Your task to perform on an android device: open app "Adobe Express: Graphic Design" Image 0: 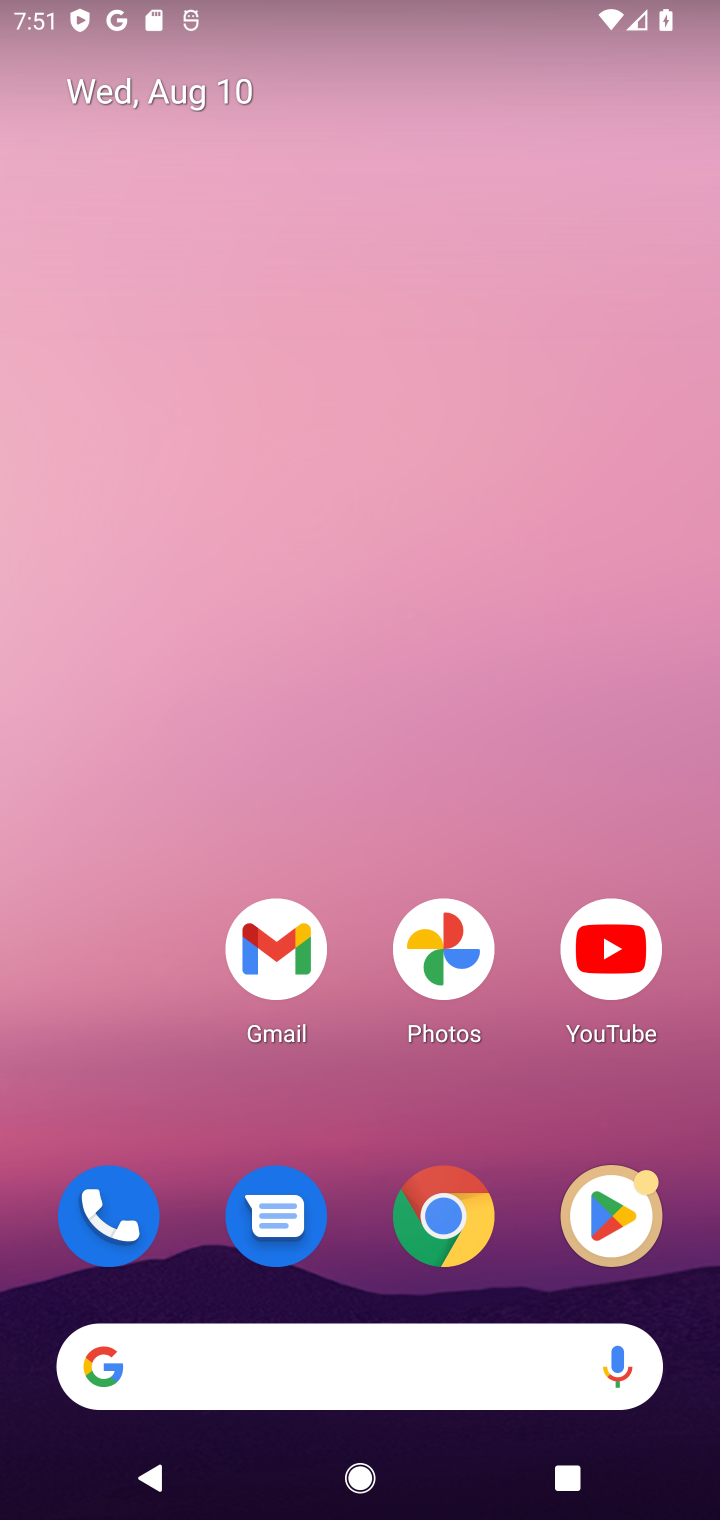
Step 0: click (628, 1228)
Your task to perform on an android device: open app "Adobe Express: Graphic Design" Image 1: 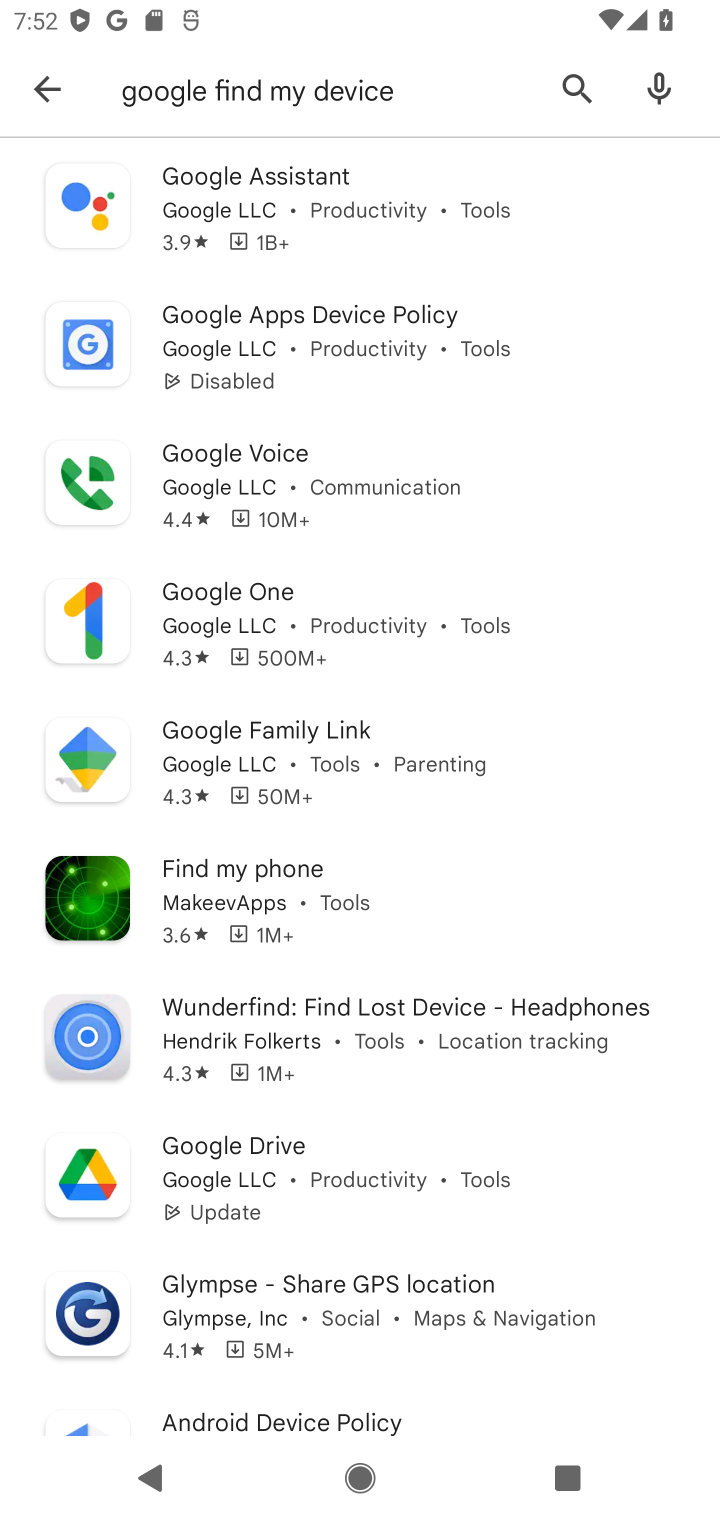
Step 1: click (572, 78)
Your task to perform on an android device: open app "Adobe Express: Graphic Design" Image 2: 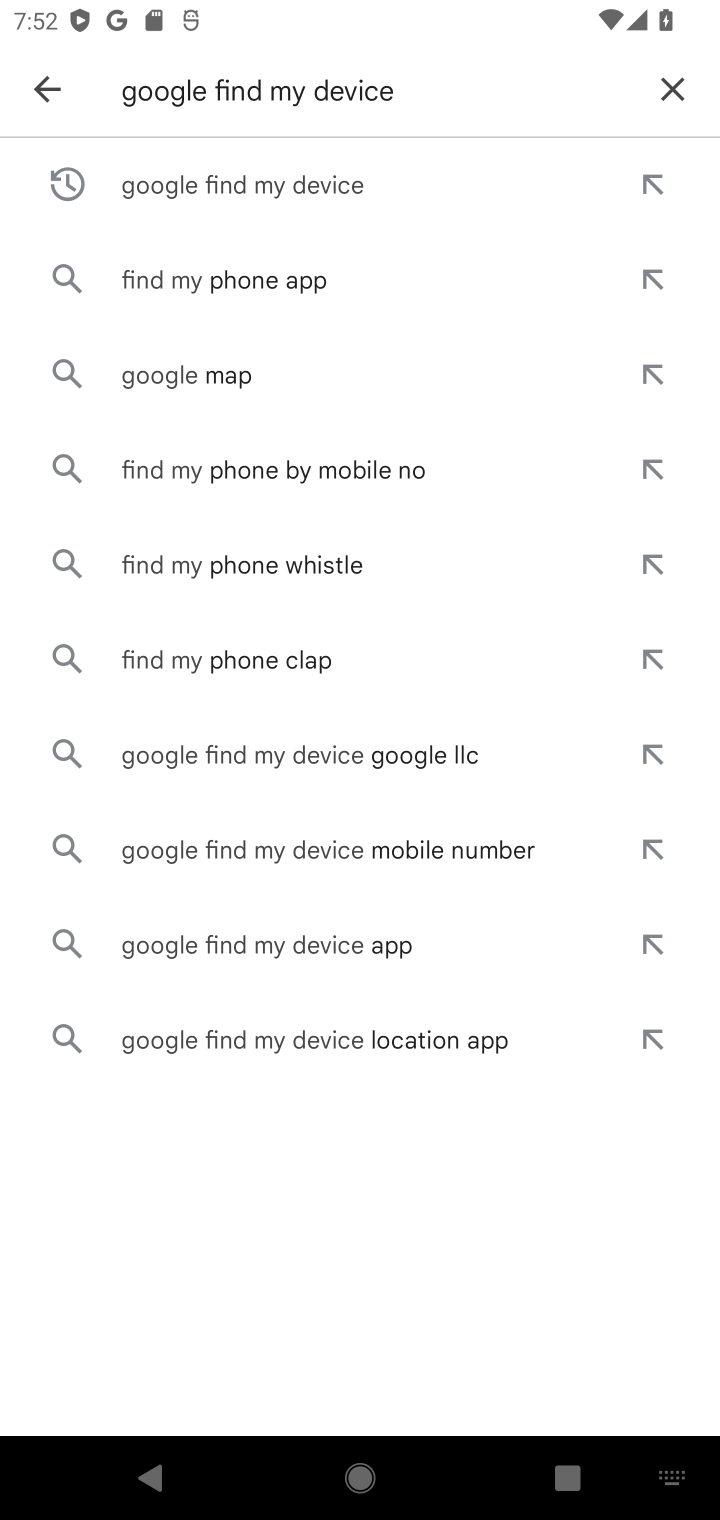
Step 2: click (660, 66)
Your task to perform on an android device: open app "Adobe Express: Graphic Design" Image 3: 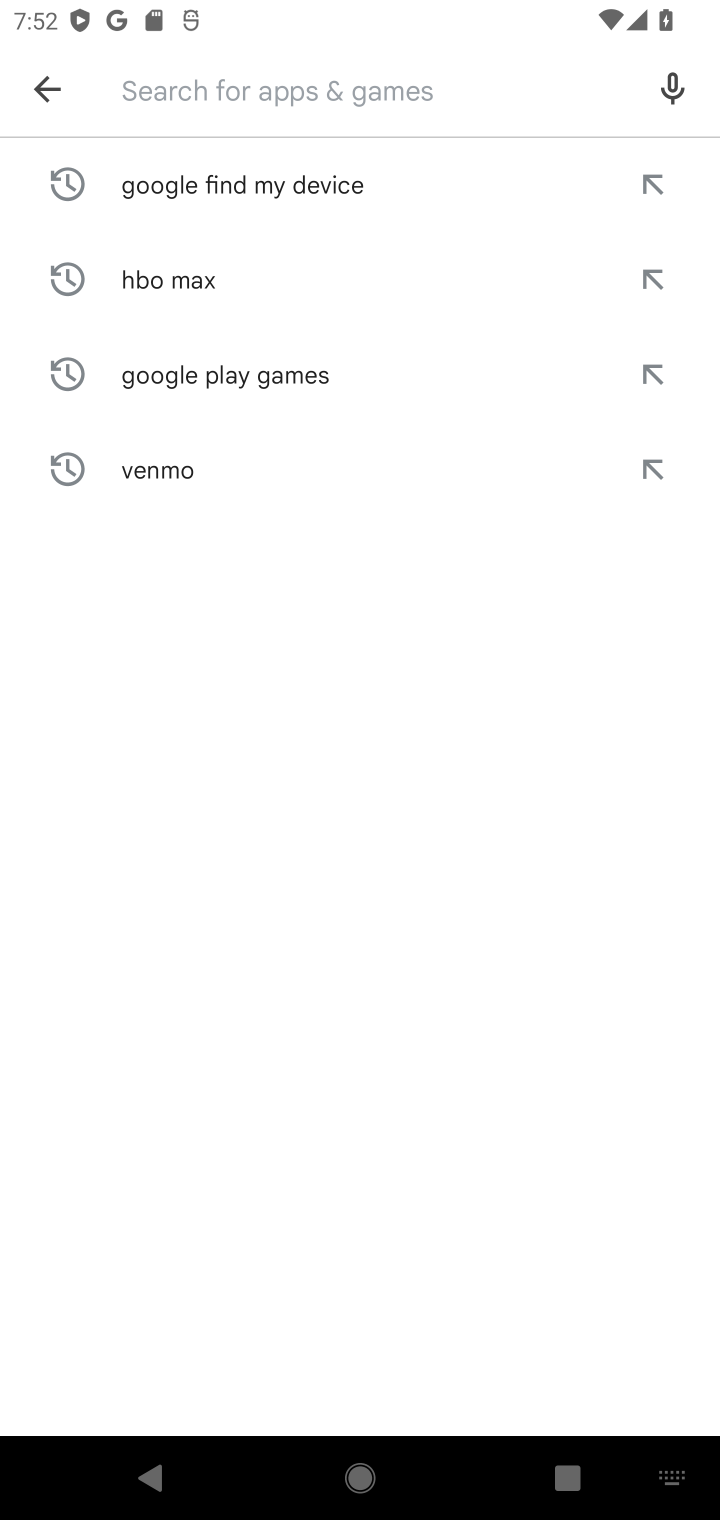
Step 3: click (256, 103)
Your task to perform on an android device: open app "Adobe Express: Graphic Design" Image 4: 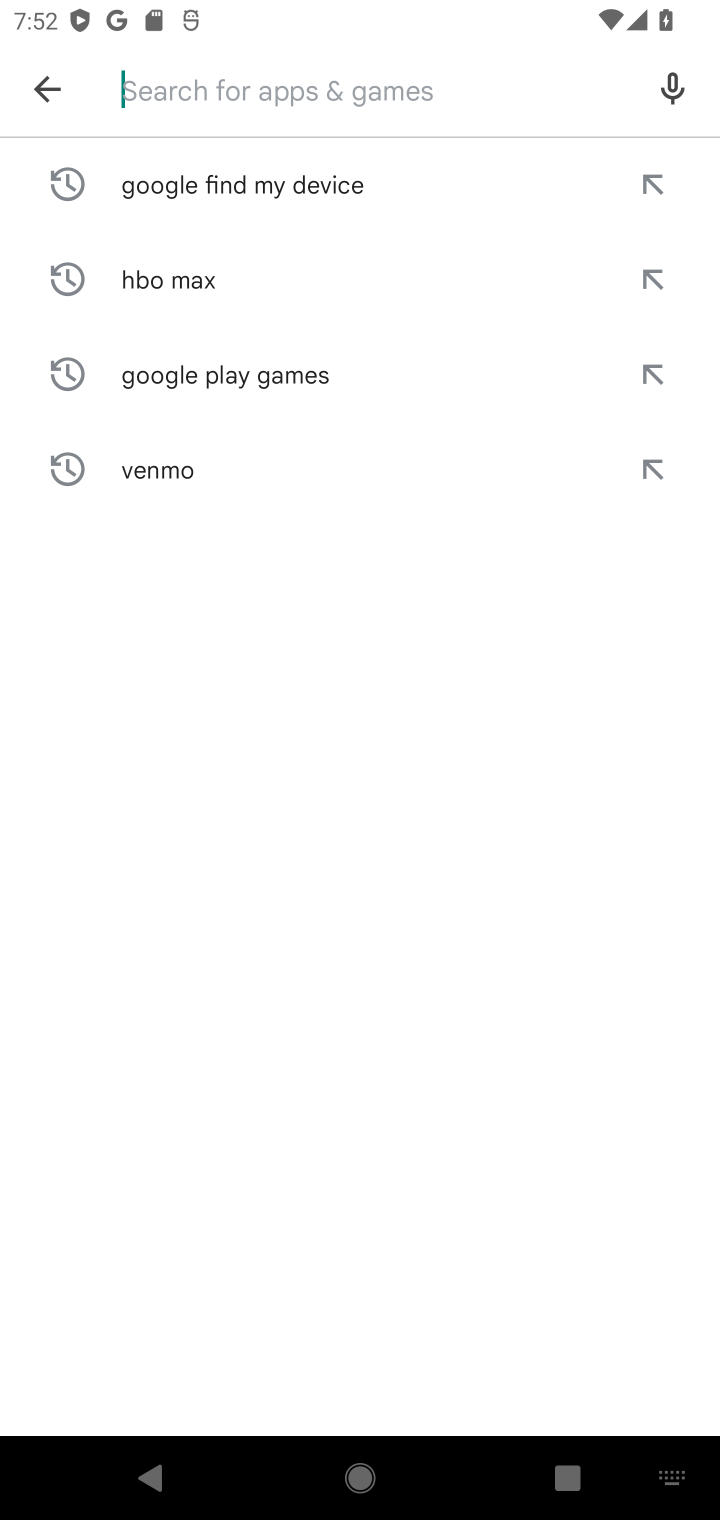
Step 4: click (199, 86)
Your task to perform on an android device: open app "Adobe Express: Graphic Design" Image 5: 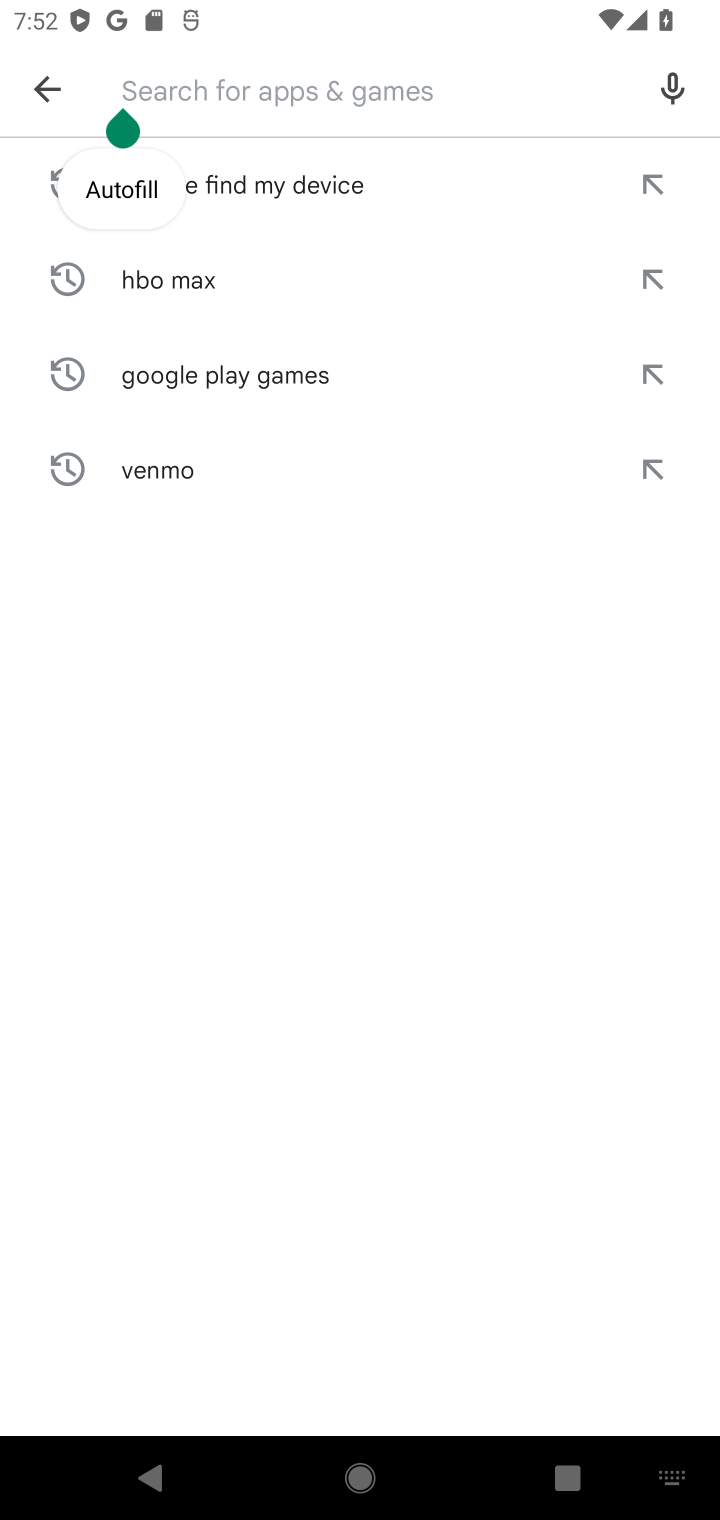
Step 5: type "Adobe Express: Graphic Design"
Your task to perform on an android device: open app "Adobe Express: Graphic Design" Image 6: 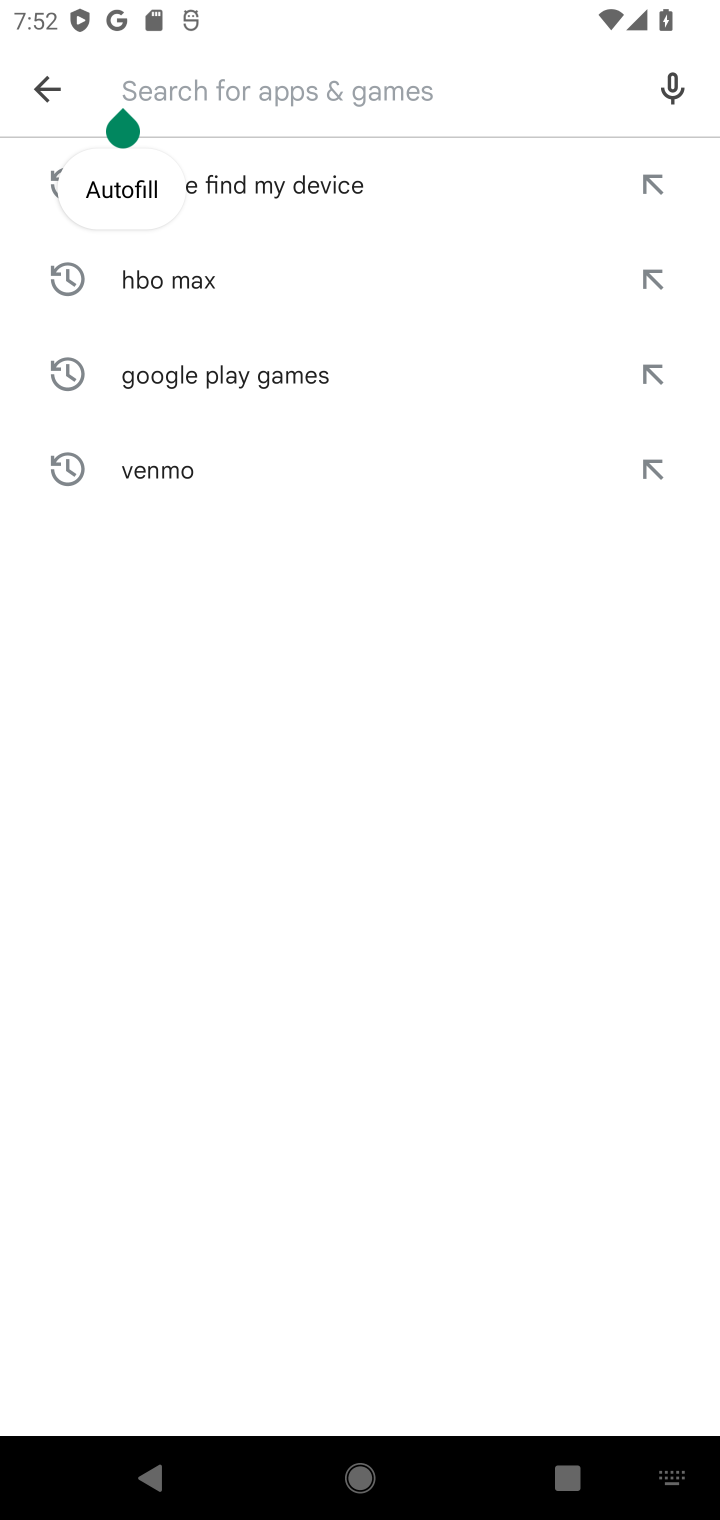
Step 6: click (350, 795)
Your task to perform on an android device: open app "Adobe Express: Graphic Design" Image 7: 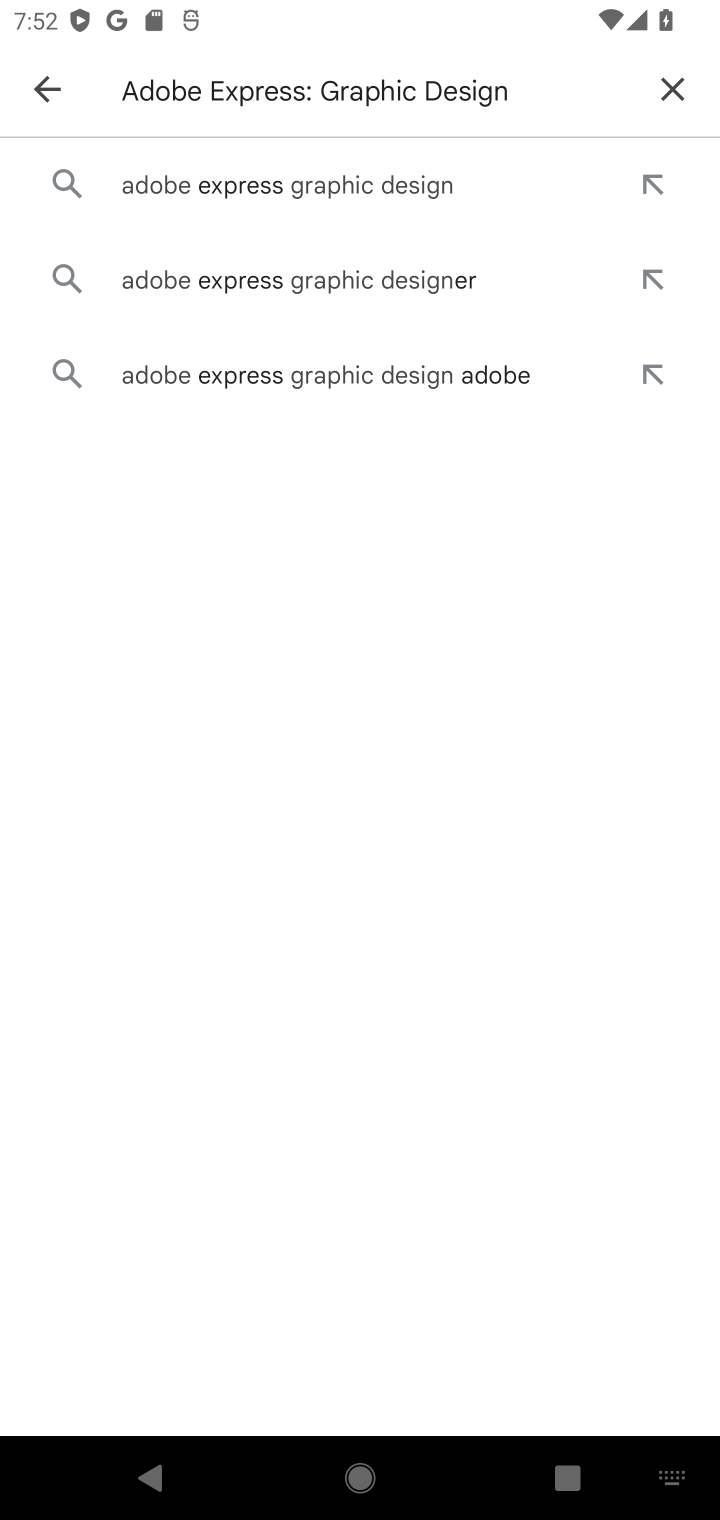
Step 7: click (335, 159)
Your task to perform on an android device: open app "Adobe Express: Graphic Design" Image 8: 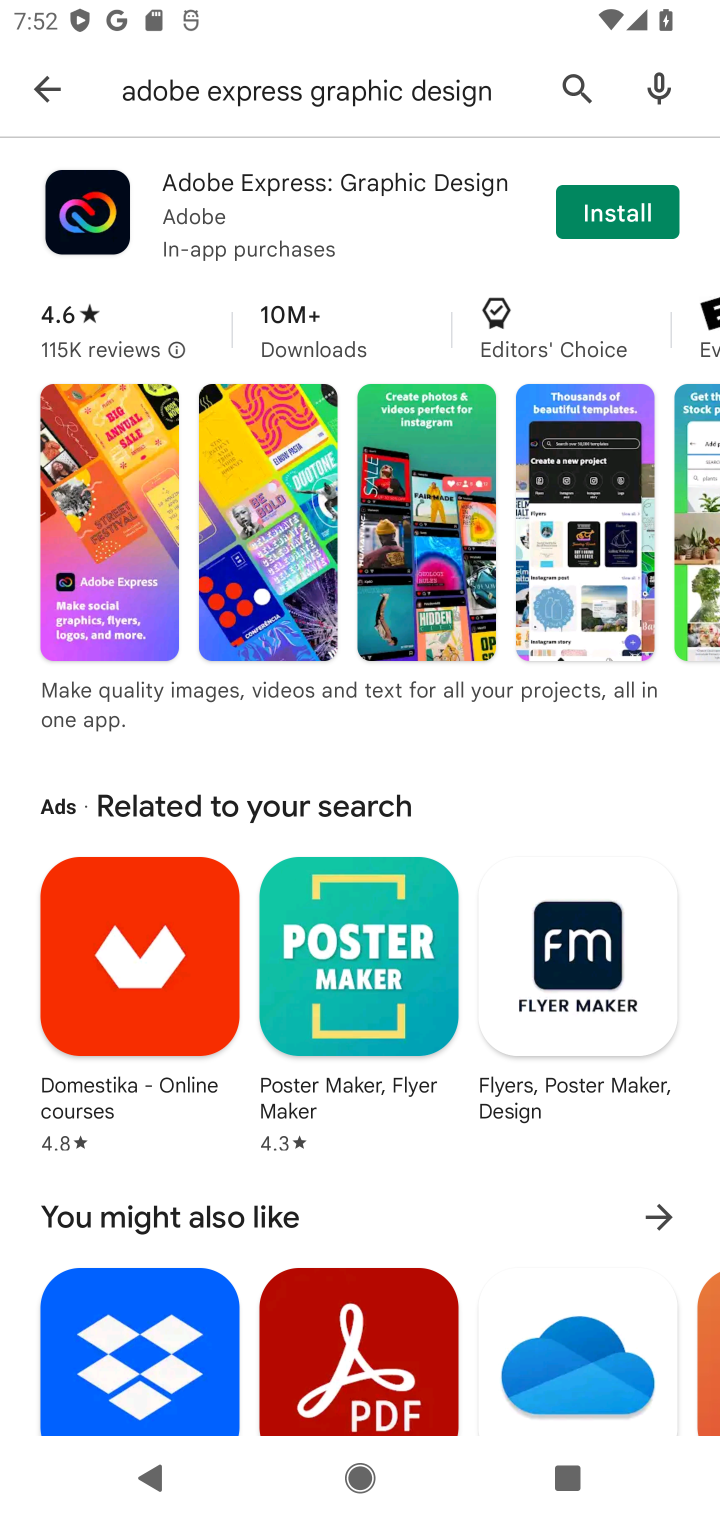
Step 8: task complete